Your task to perform on an android device: What is the recent news? Image 0: 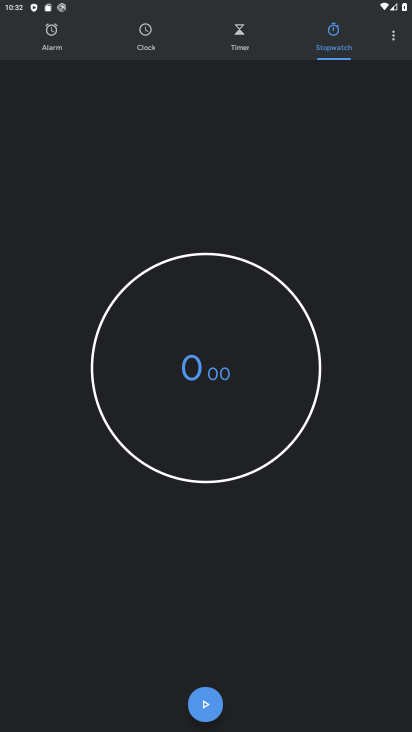
Step 0: press back button
Your task to perform on an android device: What is the recent news? Image 1: 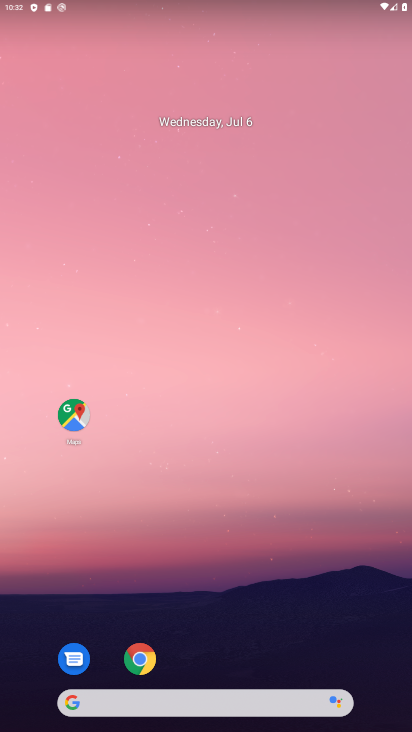
Step 1: click (144, 699)
Your task to perform on an android device: What is the recent news? Image 2: 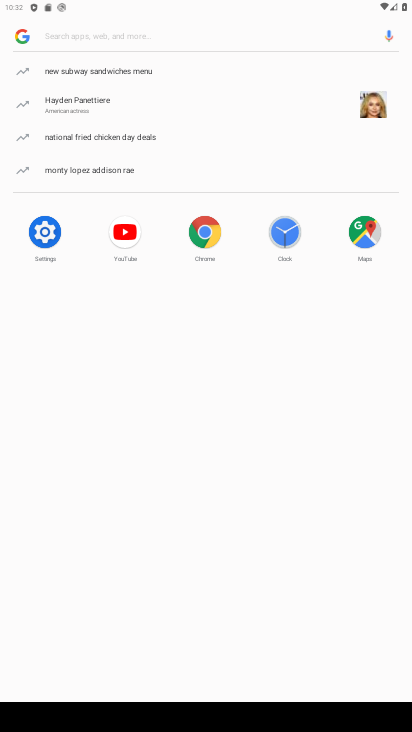
Step 2: click (96, 40)
Your task to perform on an android device: What is the recent news? Image 3: 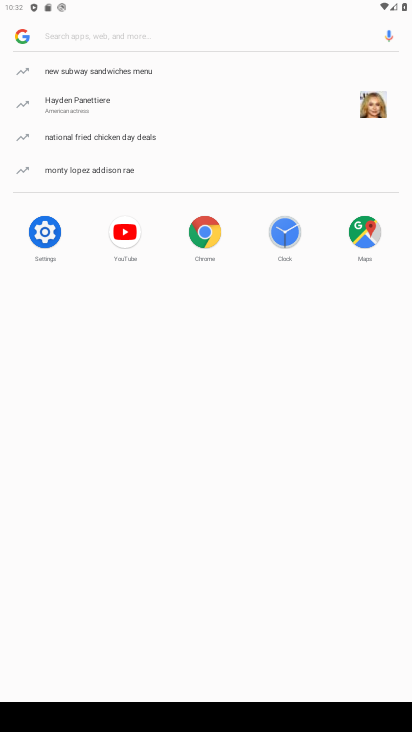
Step 3: type "recent news"
Your task to perform on an android device: What is the recent news? Image 4: 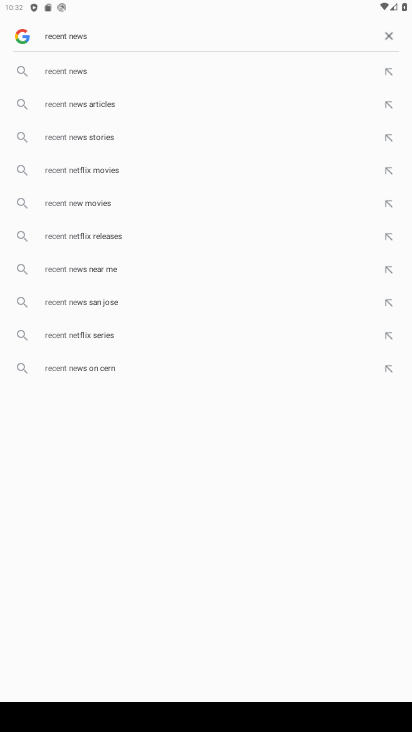
Step 4: click (118, 72)
Your task to perform on an android device: What is the recent news? Image 5: 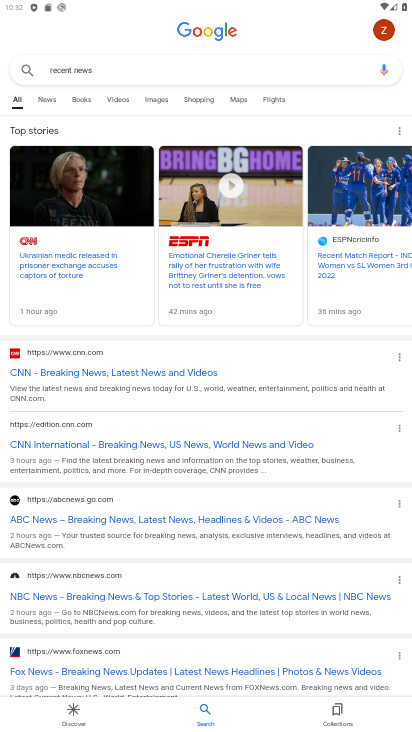
Step 5: task complete